Your task to perform on an android device: change the upload size in google photos Image 0: 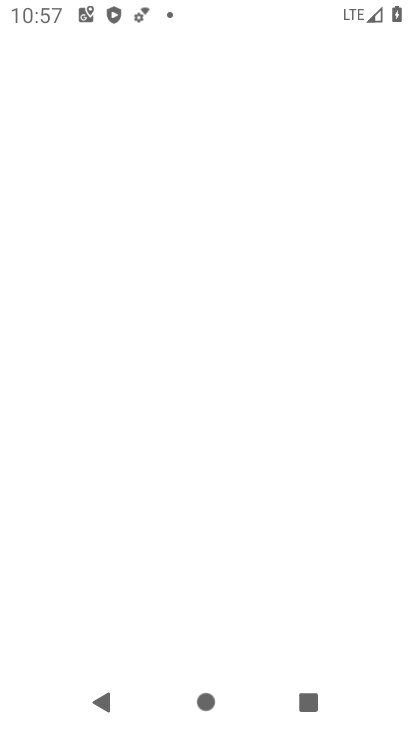
Step 0: press home button
Your task to perform on an android device: change the upload size in google photos Image 1: 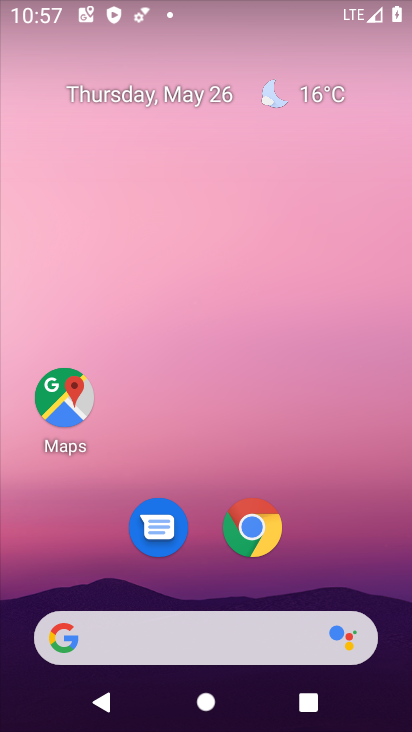
Step 1: drag from (213, 584) to (230, 22)
Your task to perform on an android device: change the upload size in google photos Image 2: 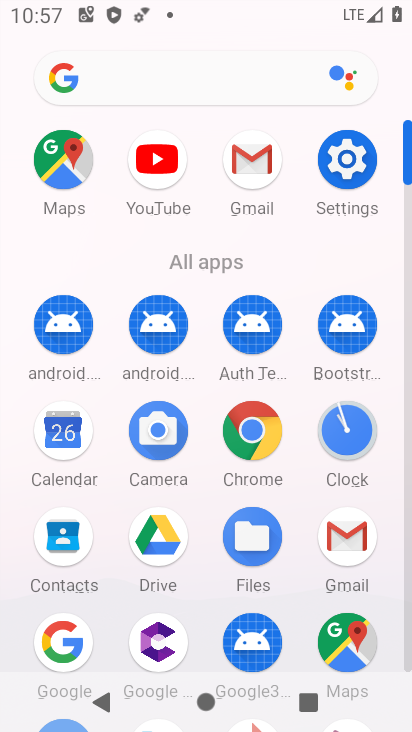
Step 2: drag from (291, 497) to (266, 96)
Your task to perform on an android device: change the upload size in google photos Image 3: 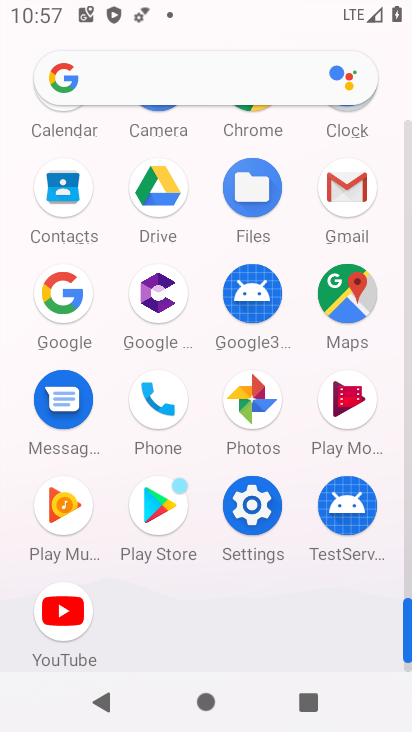
Step 3: click (256, 393)
Your task to perform on an android device: change the upload size in google photos Image 4: 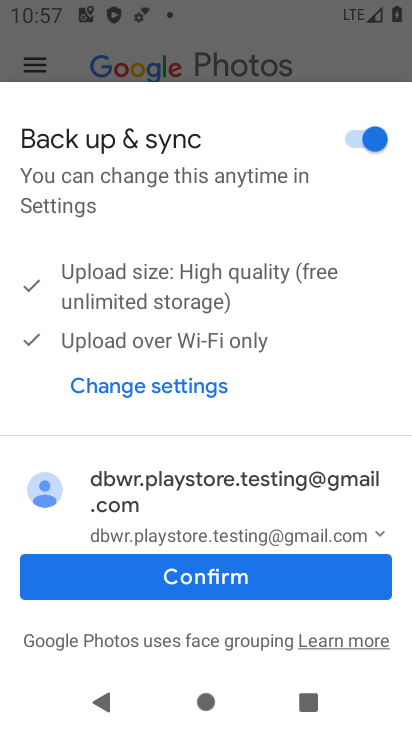
Step 4: click (229, 572)
Your task to perform on an android device: change the upload size in google photos Image 5: 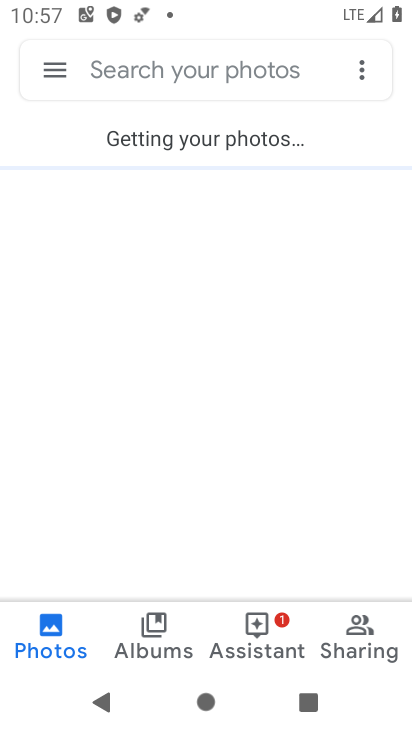
Step 5: click (55, 69)
Your task to perform on an android device: change the upload size in google photos Image 6: 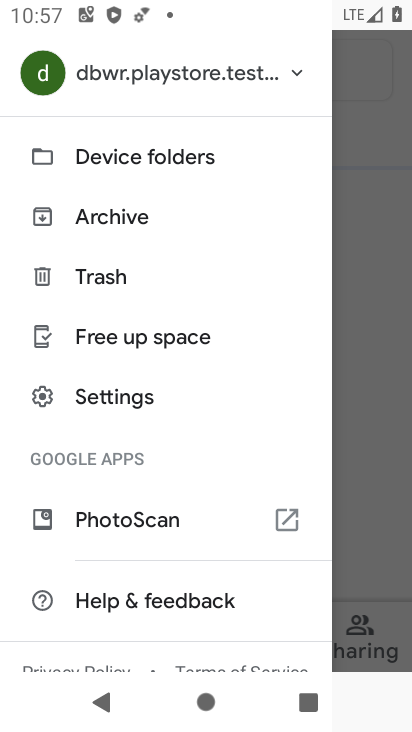
Step 6: click (120, 400)
Your task to perform on an android device: change the upload size in google photos Image 7: 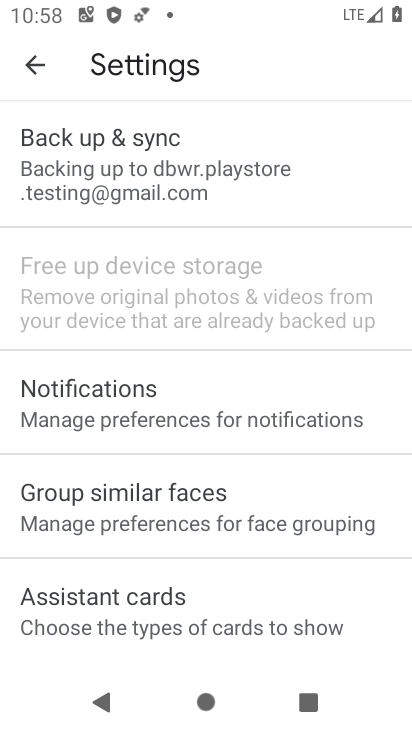
Step 7: click (128, 177)
Your task to perform on an android device: change the upload size in google photos Image 8: 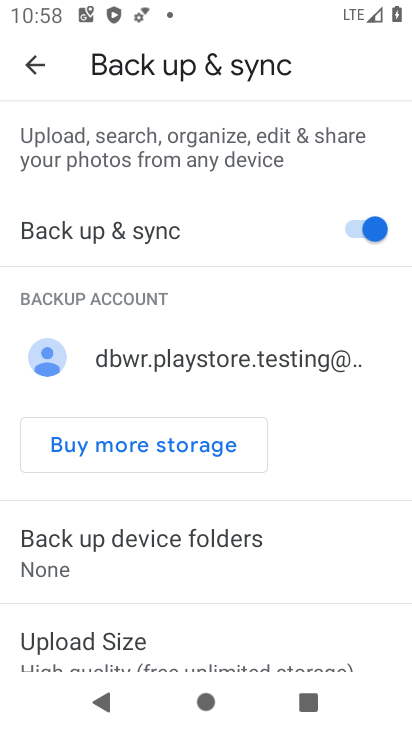
Step 8: drag from (129, 616) to (152, 242)
Your task to perform on an android device: change the upload size in google photos Image 9: 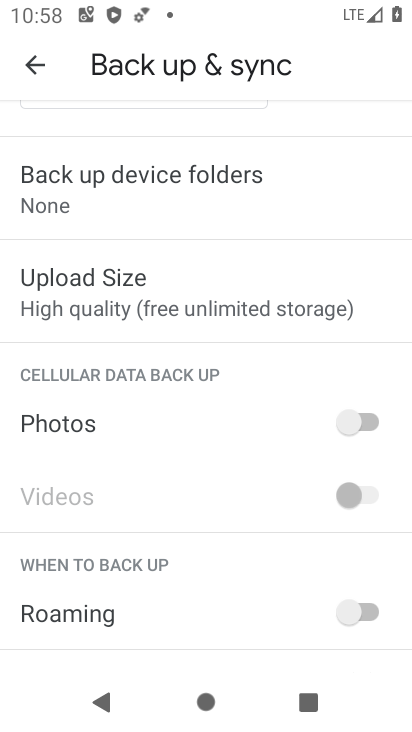
Step 9: click (100, 314)
Your task to perform on an android device: change the upload size in google photos Image 10: 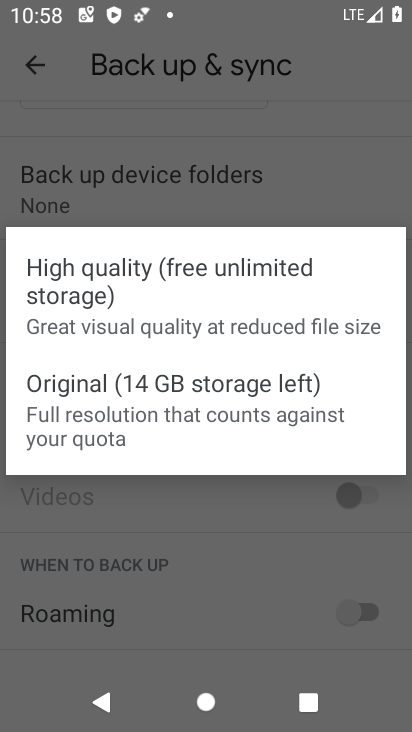
Step 10: click (95, 411)
Your task to perform on an android device: change the upload size in google photos Image 11: 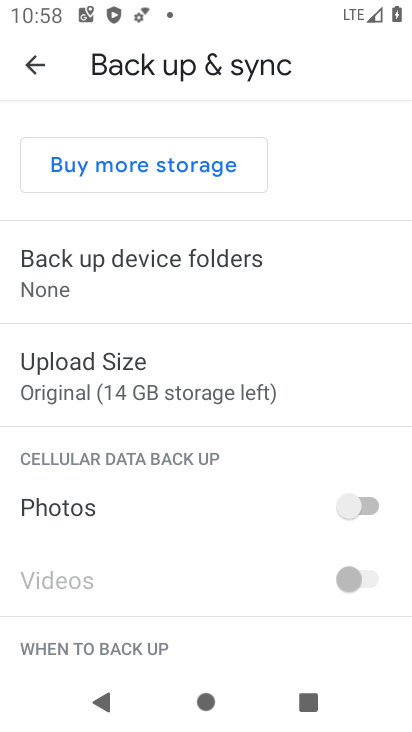
Step 11: task complete